Your task to perform on an android device: see sites visited before in the chrome app Image 0: 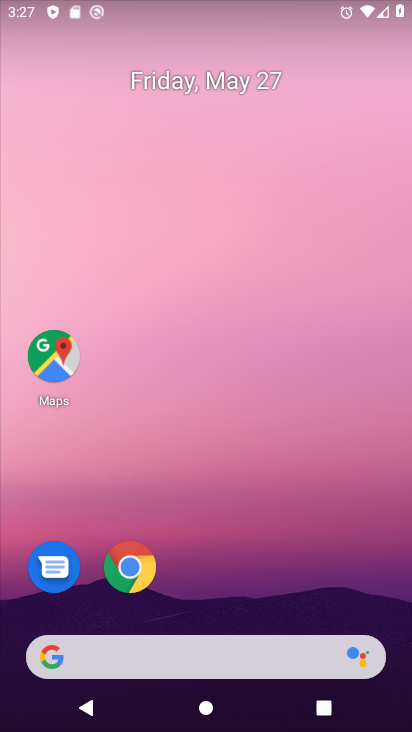
Step 0: click (139, 570)
Your task to perform on an android device: see sites visited before in the chrome app Image 1: 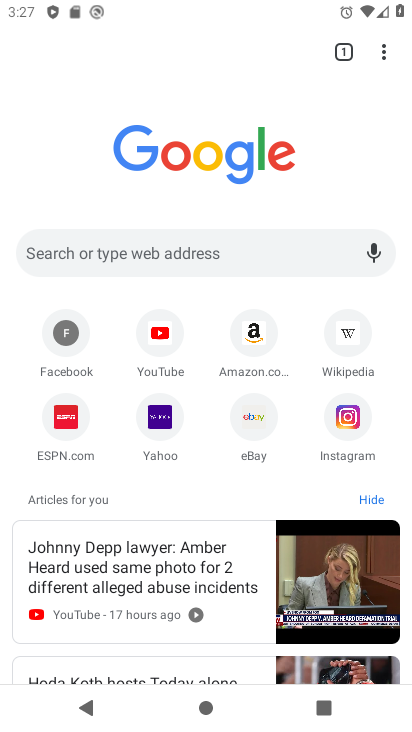
Step 1: click (382, 59)
Your task to perform on an android device: see sites visited before in the chrome app Image 2: 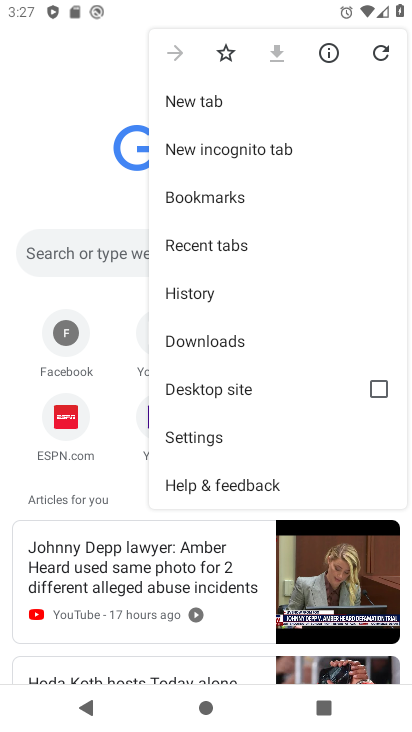
Step 2: click (197, 307)
Your task to perform on an android device: see sites visited before in the chrome app Image 3: 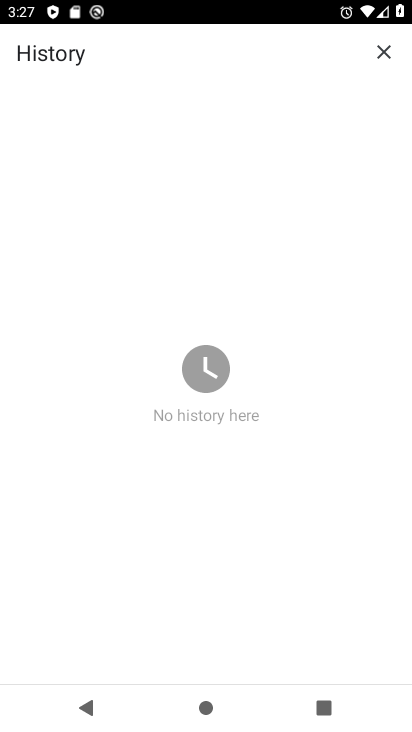
Step 3: task complete